Your task to perform on an android device: set the timer Image 0: 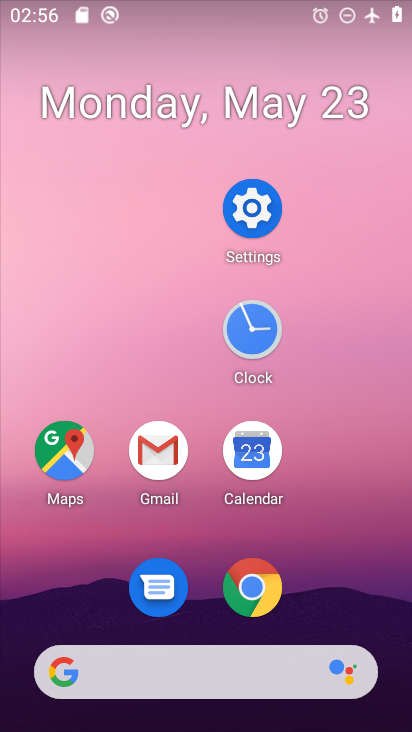
Step 0: click (262, 246)
Your task to perform on an android device: set the timer Image 1: 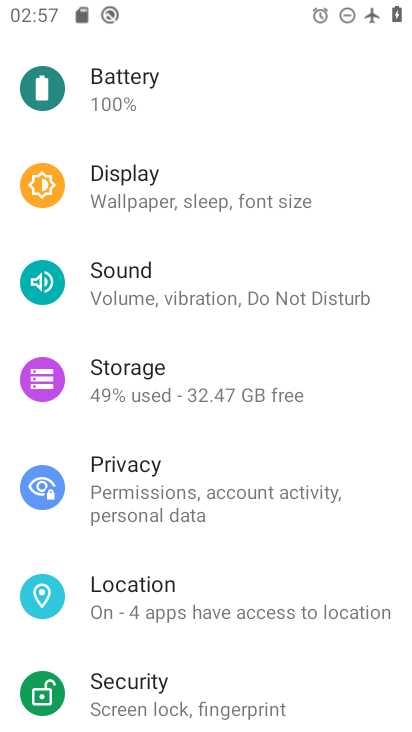
Step 1: press home button
Your task to perform on an android device: set the timer Image 2: 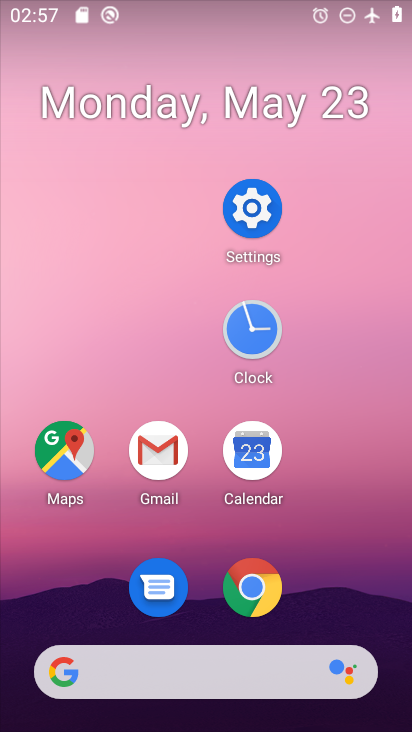
Step 2: click (253, 349)
Your task to perform on an android device: set the timer Image 3: 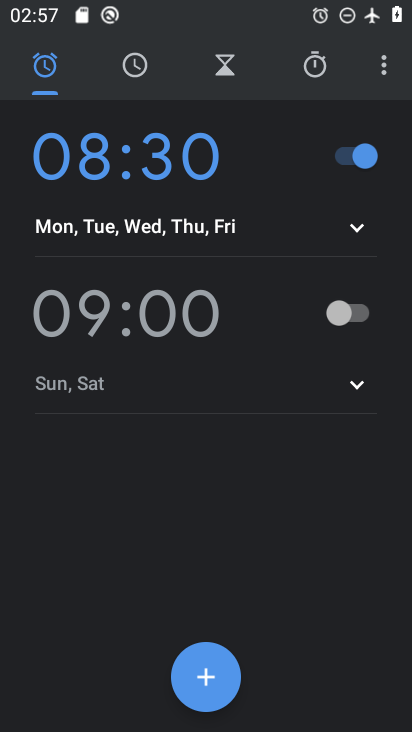
Step 3: click (231, 88)
Your task to perform on an android device: set the timer Image 4: 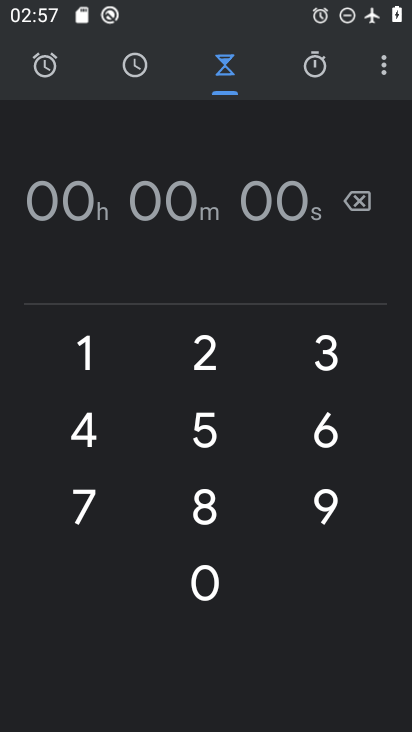
Step 4: click (231, 88)
Your task to perform on an android device: set the timer Image 5: 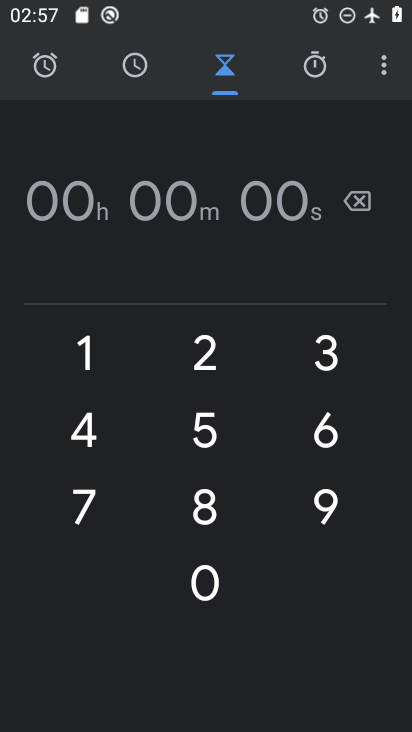
Step 5: task complete